Your task to perform on an android device: Open Reddit.com Image 0: 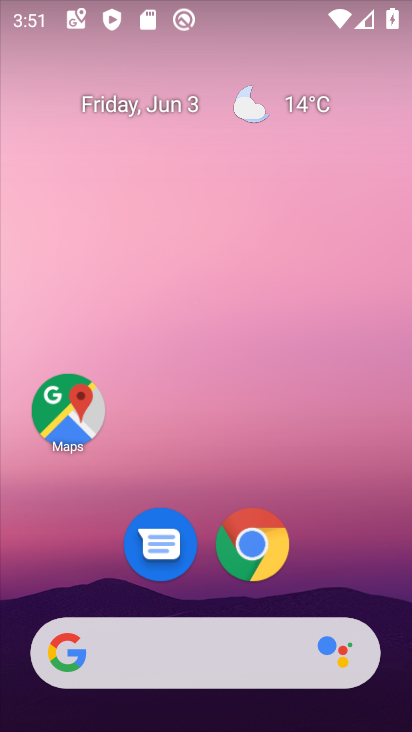
Step 0: click (253, 548)
Your task to perform on an android device: Open Reddit.com Image 1: 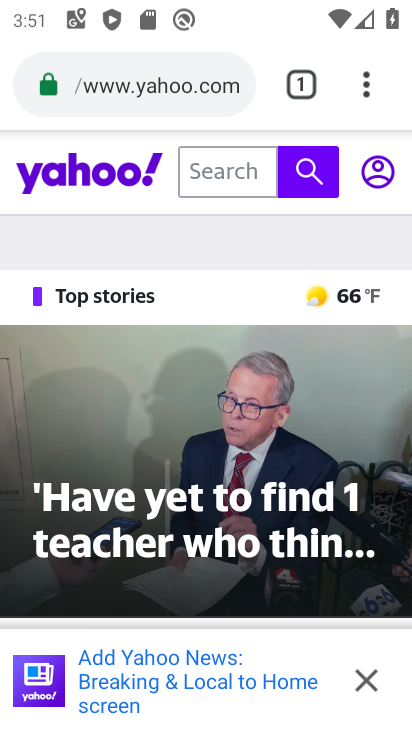
Step 1: click (193, 62)
Your task to perform on an android device: Open Reddit.com Image 2: 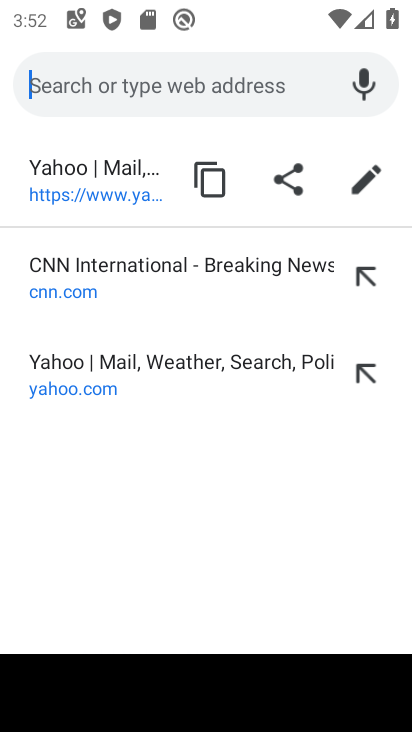
Step 2: type "reddit.com"
Your task to perform on an android device: Open Reddit.com Image 3: 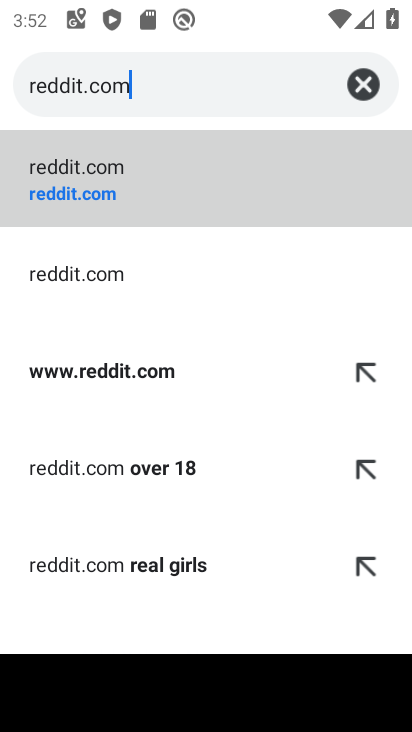
Step 3: click (79, 173)
Your task to perform on an android device: Open Reddit.com Image 4: 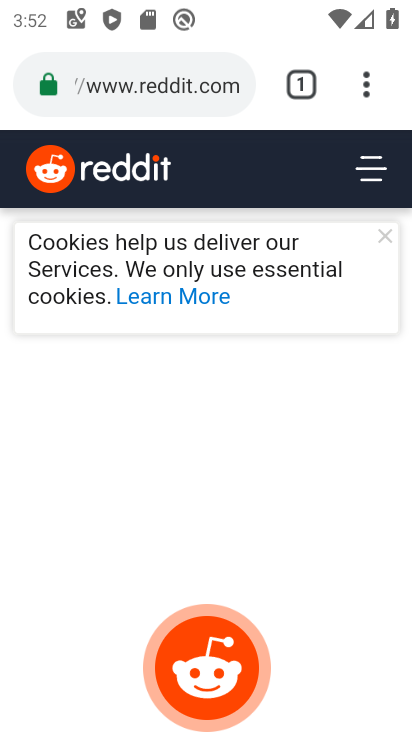
Step 4: task complete